Your task to perform on an android device: open device folders in google photos Image 0: 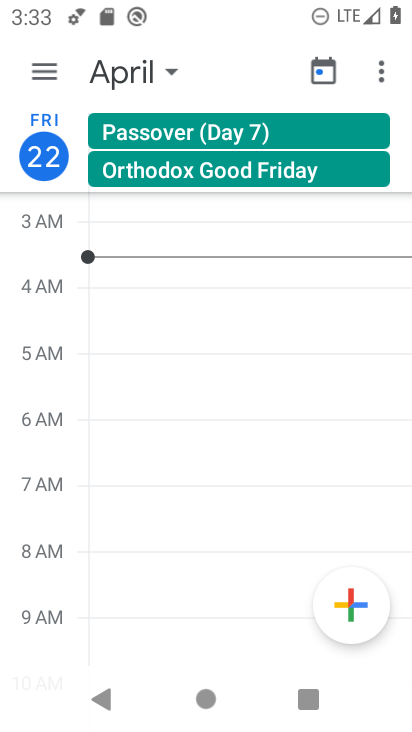
Step 0: press home button
Your task to perform on an android device: open device folders in google photos Image 1: 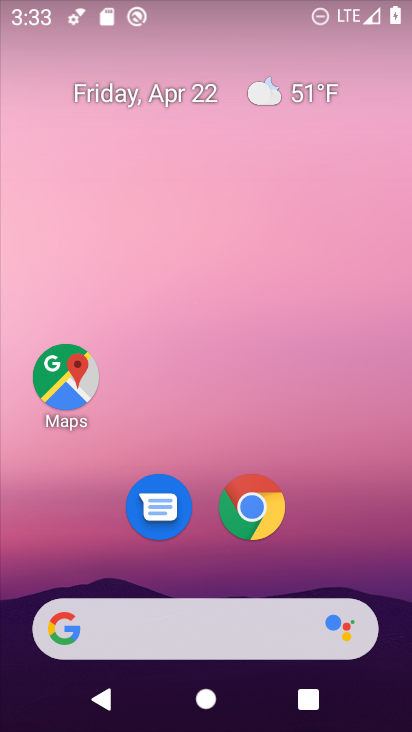
Step 1: drag from (226, 589) to (251, 32)
Your task to perform on an android device: open device folders in google photos Image 2: 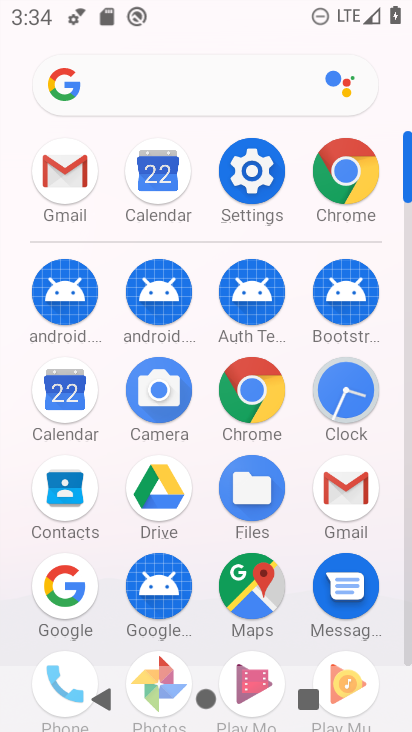
Step 2: click (157, 652)
Your task to perform on an android device: open device folders in google photos Image 3: 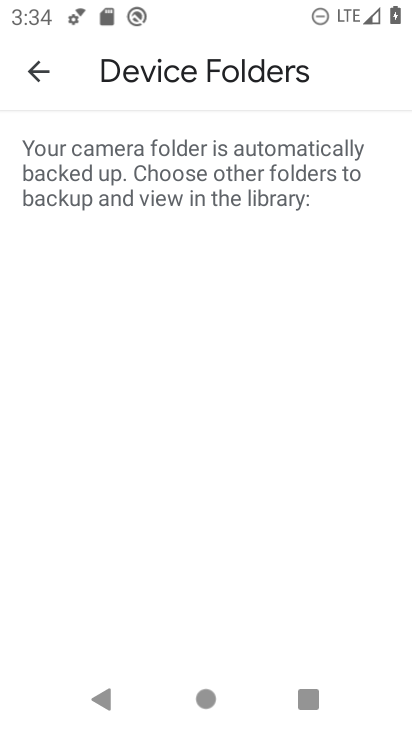
Step 3: task complete